Your task to perform on an android device: delete a single message in the gmail app Image 0: 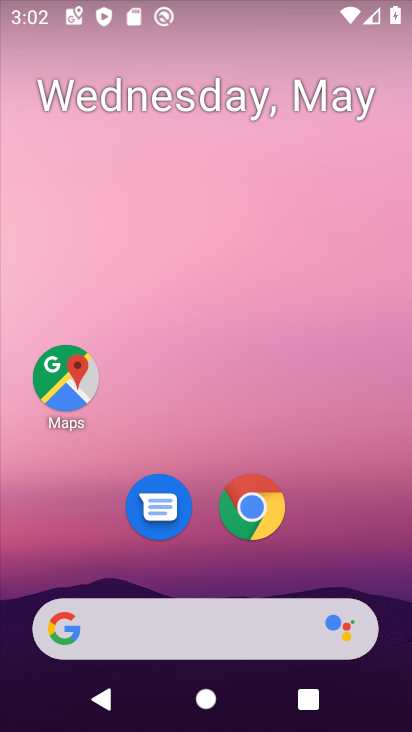
Step 0: drag from (175, 537) to (279, 47)
Your task to perform on an android device: delete a single message in the gmail app Image 1: 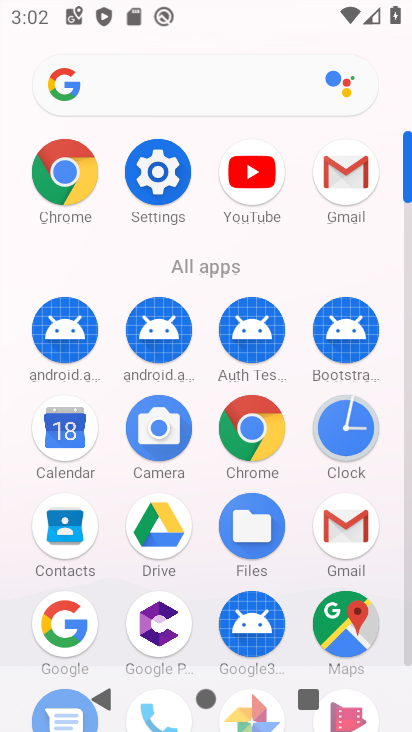
Step 1: click (352, 177)
Your task to perform on an android device: delete a single message in the gmail app Image 2: 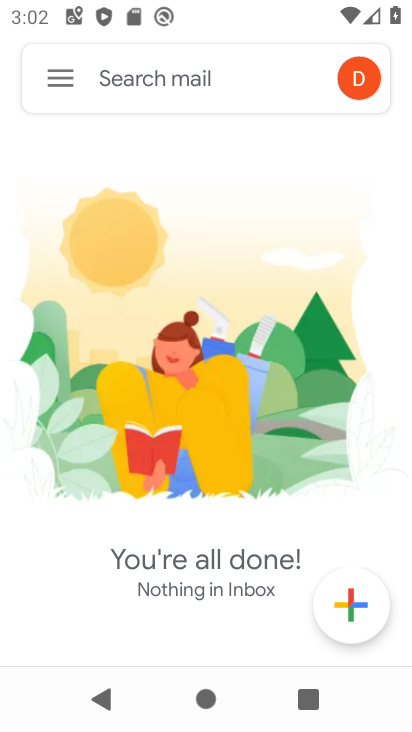
Step 2: click (53, 81)
Your task to perform on an android device: delete a single message in the gmail app Image 3: 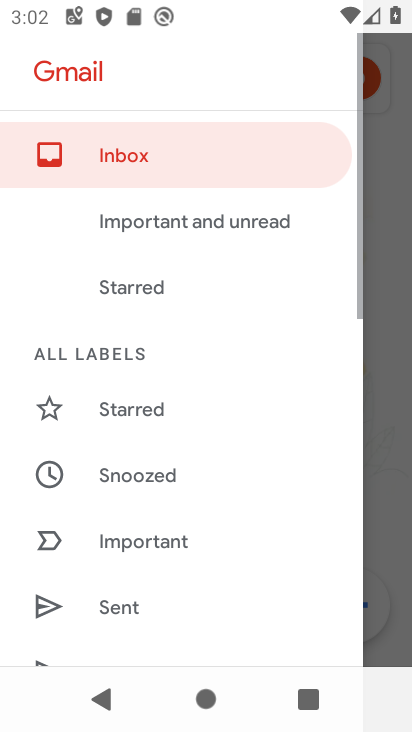
Step 3: drag from (149, 580) to (217, 129)
Your task to perform on an android device: delete a single message in the gmail app Image 4: 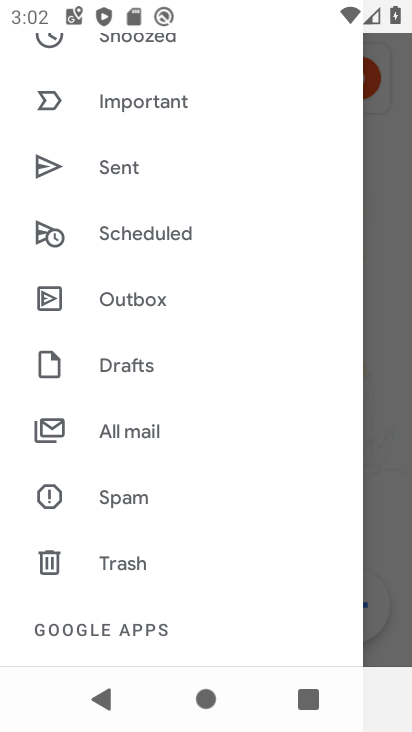
Step 4: click (119, 427)
Your task to perform on an android device: delete a single message in the gmail app Image 5: 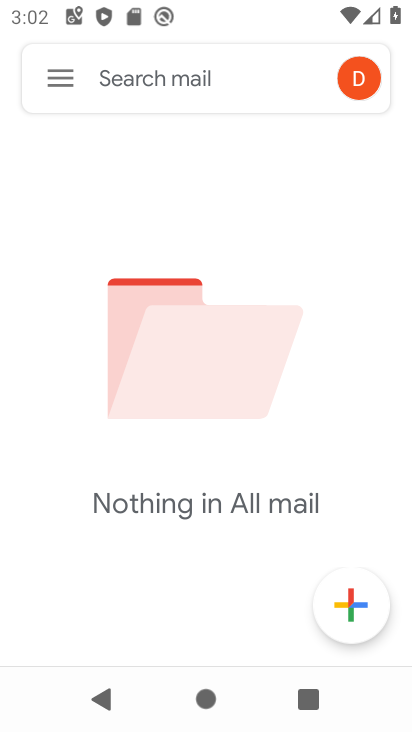
Step 5: task complete